Your task to perform on an android device: Go to internet settings Image 0: 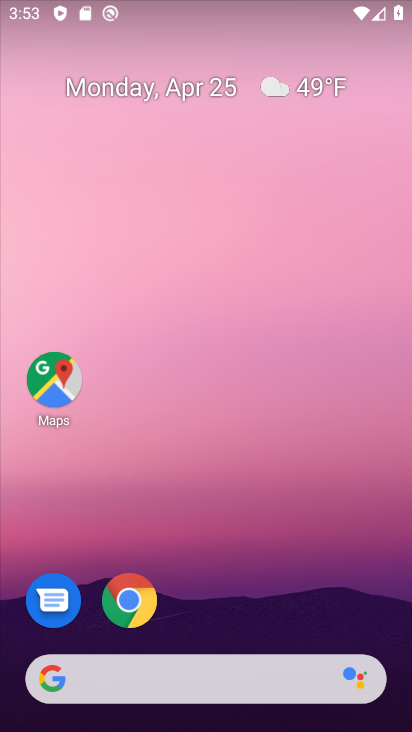
Step 0: drag from (283, 556) to (285, 1)
Your task to perform on an android device: Go to internet settings Image 1: 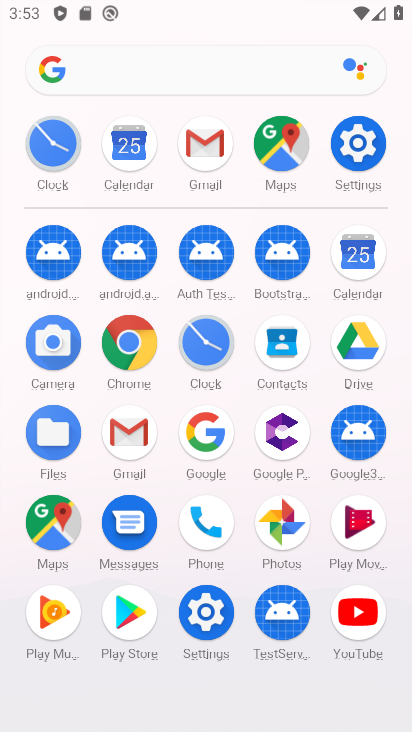
Step 1: click (350, 138)
Your task to perform on an android device: Go to internet settings Image 2: 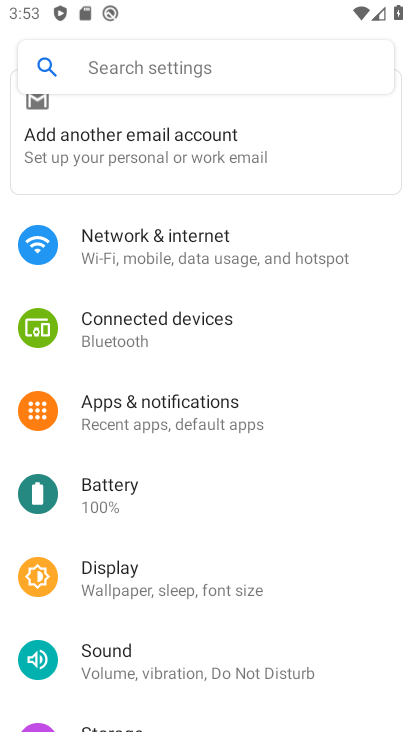
Step 2: click (223, 250)
Your task to perform on an android device: Go to internet settings Image 3: 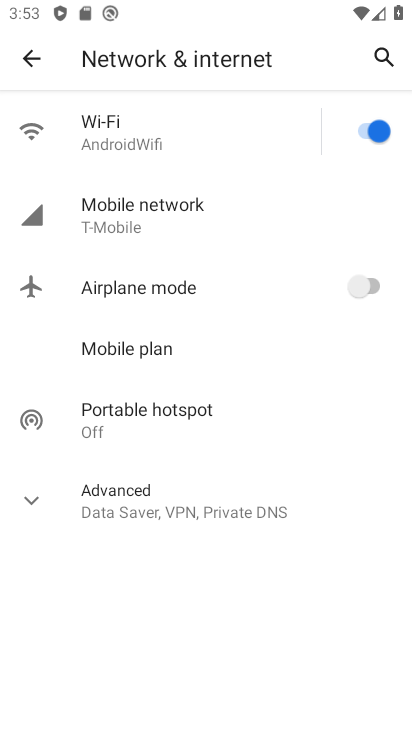
Step 3: task complete